Your task to perform on an android device: turn on javascript in the chrome app Image 0: 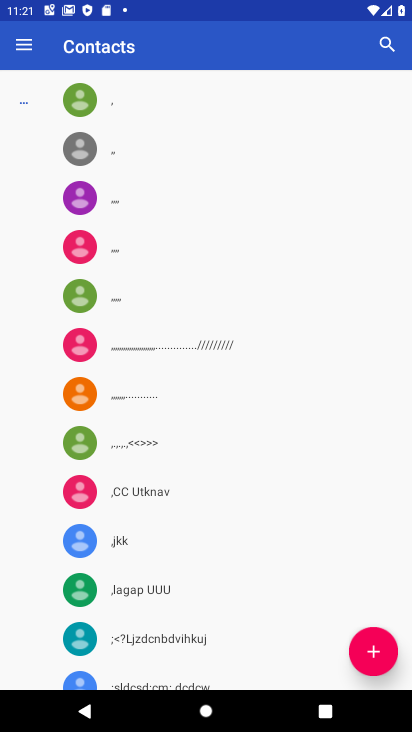
Step 0: press home button
Your task to perform on an android device: turn on javascript in the chrome app Image 1: 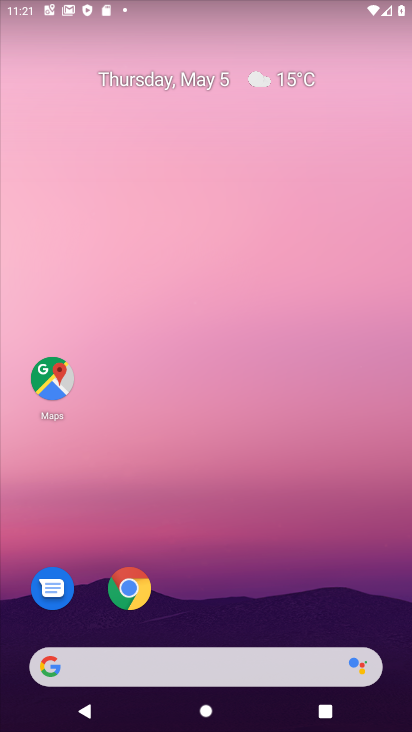
Step 1: drag from (243, 542) to (274, 54)
Your task to perform on an android device: turn on javascript in the chrome app Image 2: 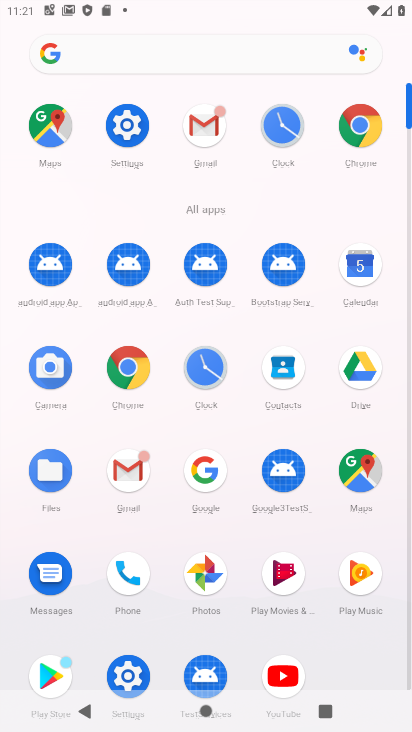
Step 2: click (360, 122)
Your task to perform on an android device: turn on javascript in the chrome app Image 3: 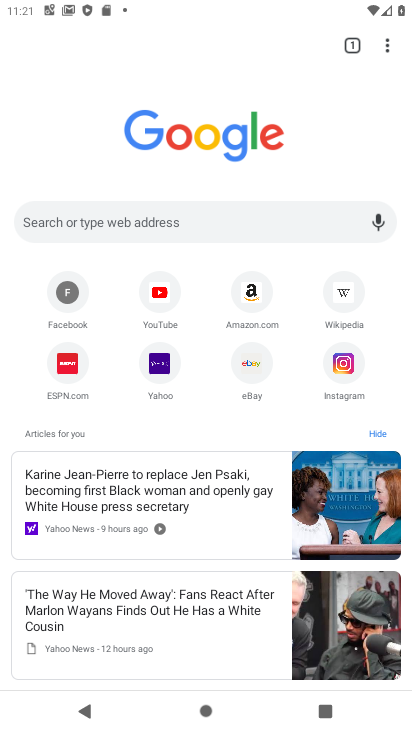
Step 3: drag from (386, 41) to (291, 372)
Your task to perform on an android device: turn on javascript in the chrome app Image 4: 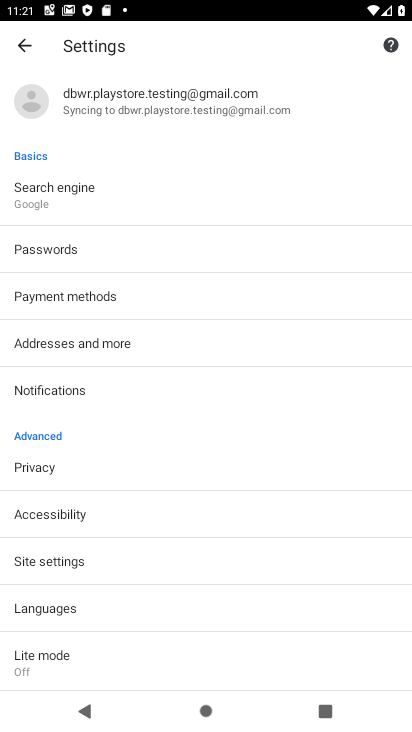
Step 4: click (187, 572)
Your task to perform on an android device: turn on javascript in the chrome app Image 5: 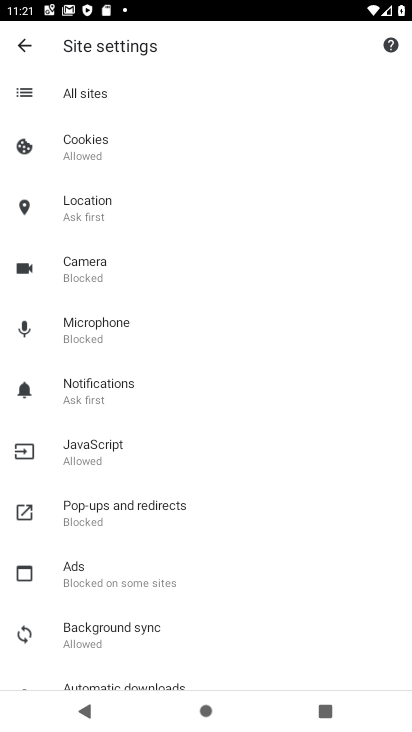
Step 5: click (183, 452)
Your task to perform on an android device: turn on javascript in the chrome app Image 6: 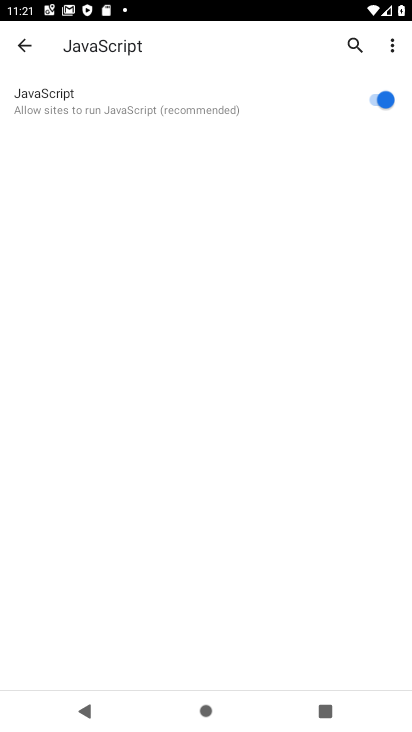
Step 6: task complete